Your task to perform on an android device: change timer sound Image 0: 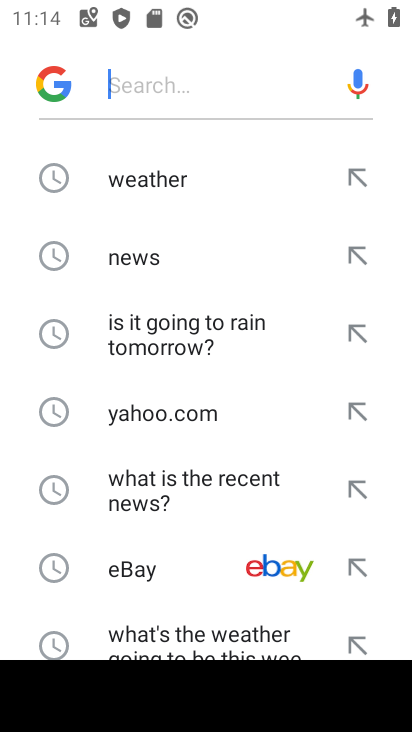
Step 0: press home button
Your task to perform on an android device: change timer sound Image 1: 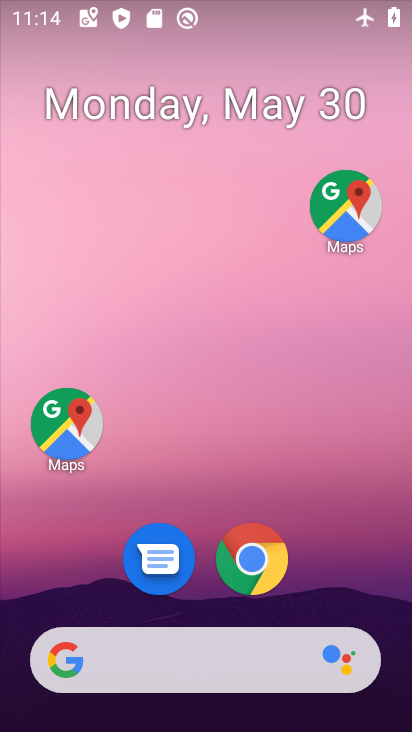
Step 1: drag from (351, 514) to (0, 13)
Your task to perform on an android device: change timer sound Image 2: 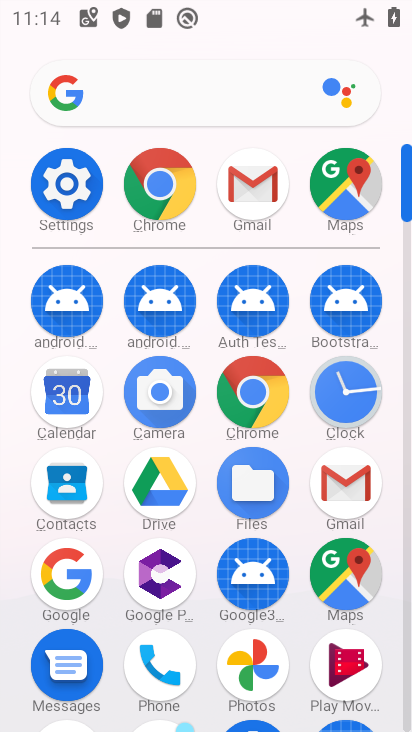
Step 2: click (348, 404)
Your task to perform on an android device: change timer sound Image 3: 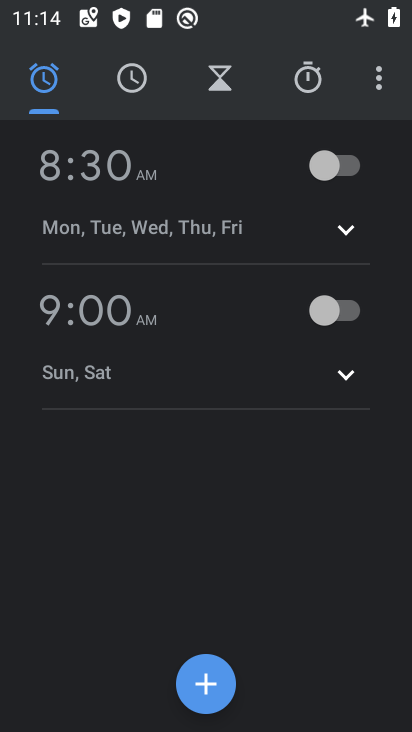
Step 3: click (373, 71)
Your task to perform on an android device: change timer sound Image 4: 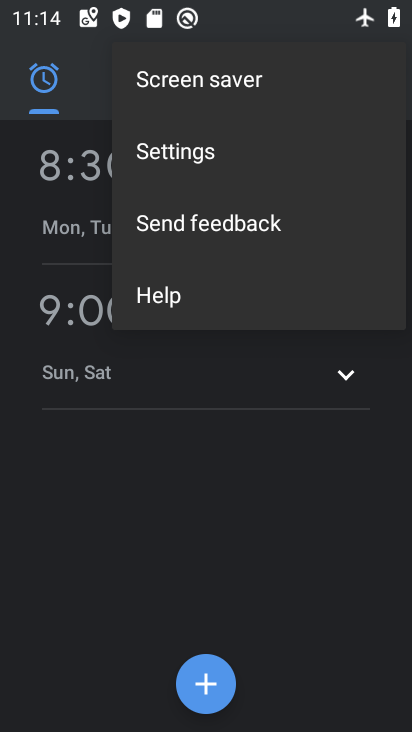
Step 4: click (206, 166)
Your task to perform on an android device: change timer sound Image 5: 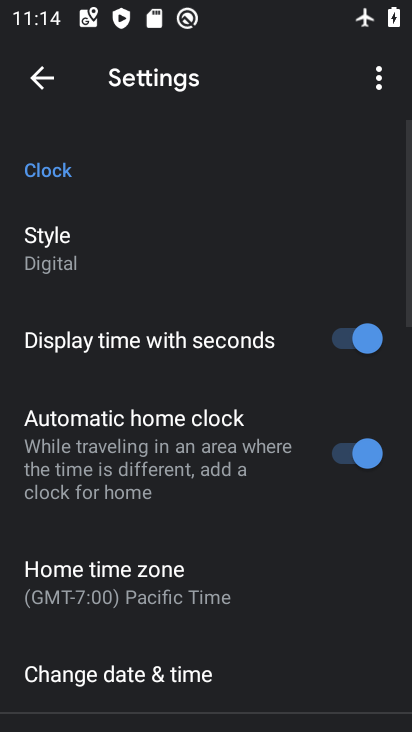
Step 5: drag from (258, 535) to (240, 1)
Your task to perform on an android device: change timer sound Image 6: 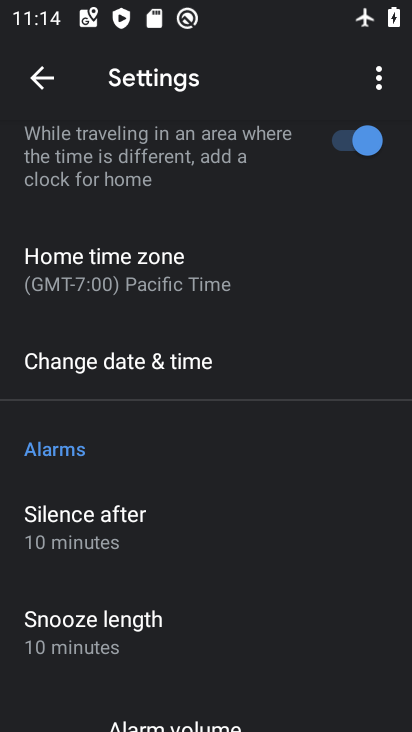
Step 6: drag from (234, 549) to (195, 104)
Your task to perform on an android device: change timer sound Image 7: 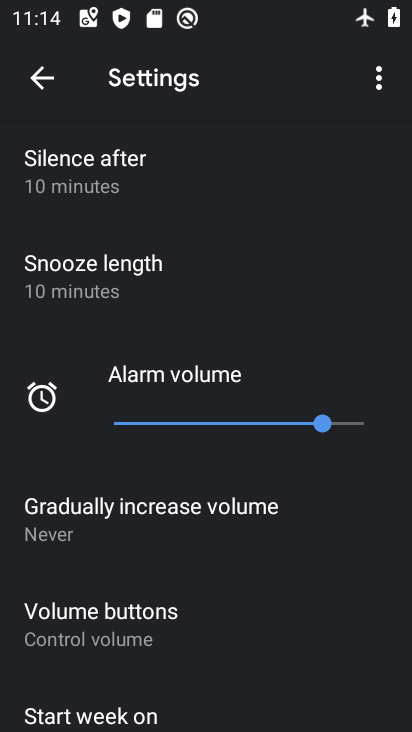
Step 7: drag from (184, 633) to (214, 140)
Your task to perform on an android device: change timer sound Image 8: 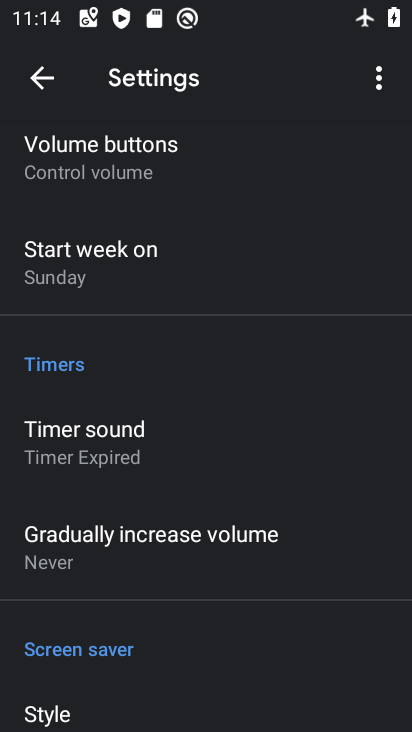
Step 8: click (124, 465)
Your task to perform on an android device: change timer sound Image 9: 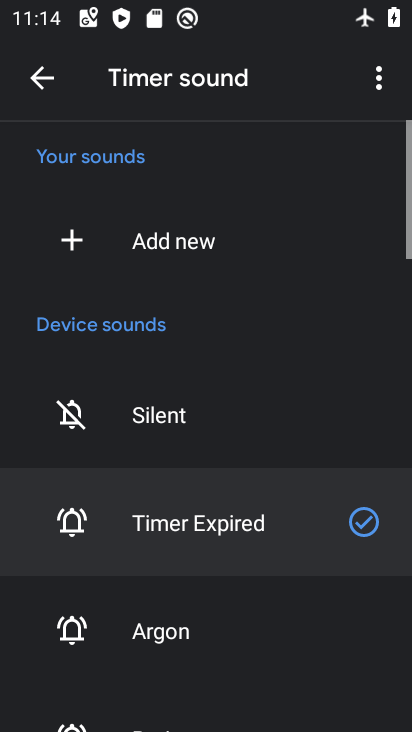
Step 9: click (188, 638)
Your task to perform on an android device: change timer sound Image 10: 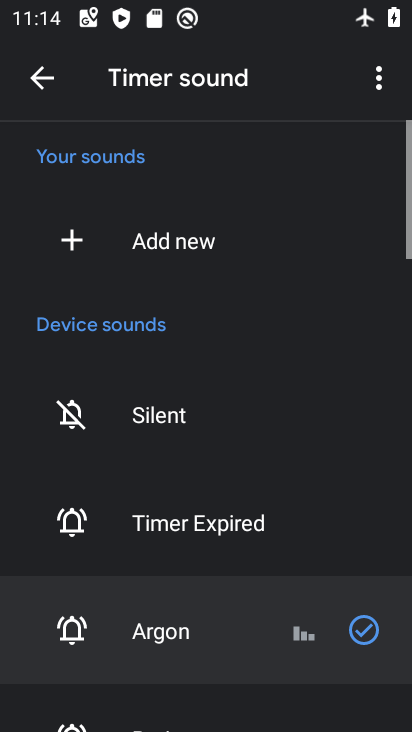
Step 10: task complete